Your task to perform on an android device: Open CNN.com Image 0: 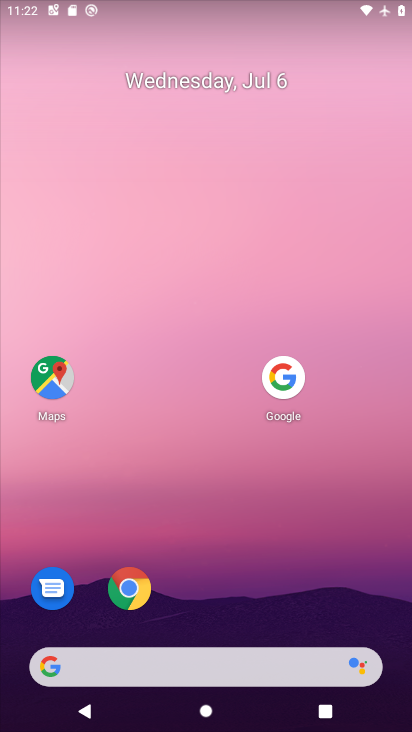
Step 0: click (124, 593)
Your task to perform on an android device: Open CNN.com Image 1: 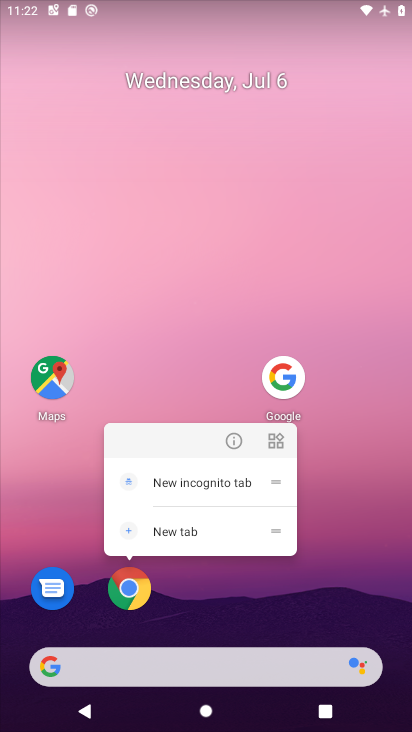
Step 1: click (141, 587)
Your task to perform on an android device: Open CNN.com Image 2: 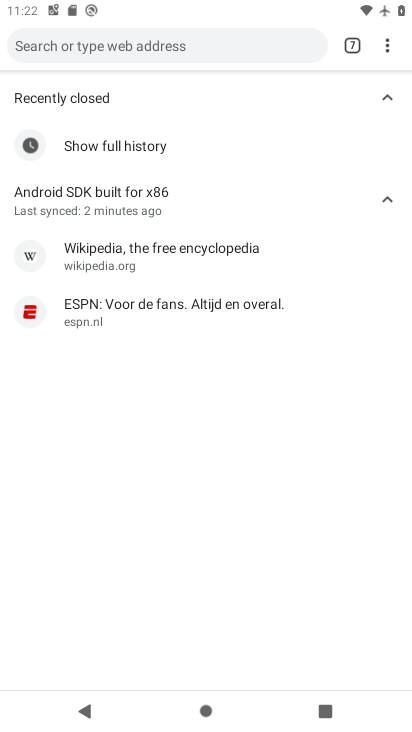
Step 2: click (387, 57)
Your task to perform on an android device: Open CNN.com Image 3: 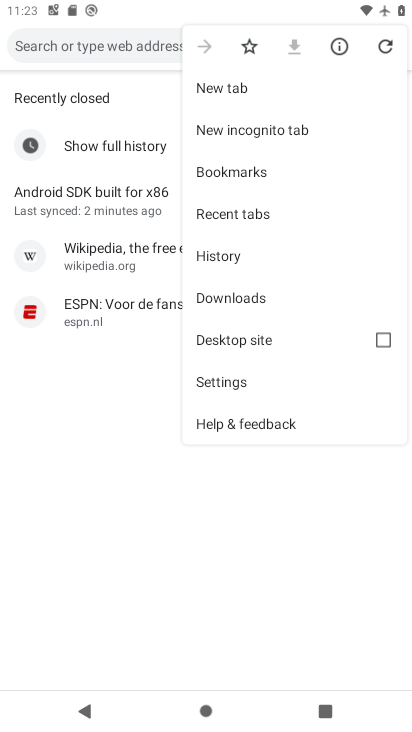
Step 3: click (243, 89)
Your task to perform on an android device: Open CNN.com Image 4: 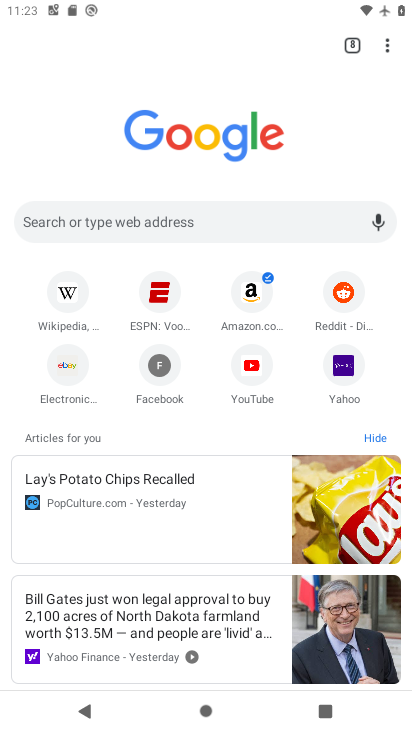
Step 4: click (151, 219)
Your task to perform on an android device: Open CNN.com Image 5: 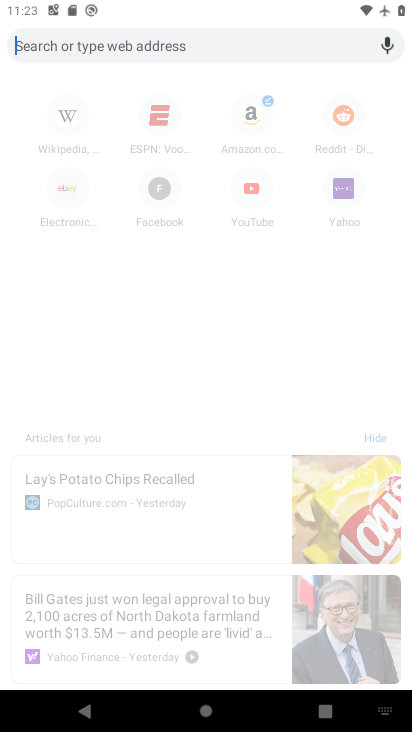
Step 5: type "cnn.com"
Your task to perform on an android device: Open CNN.com Image 6: 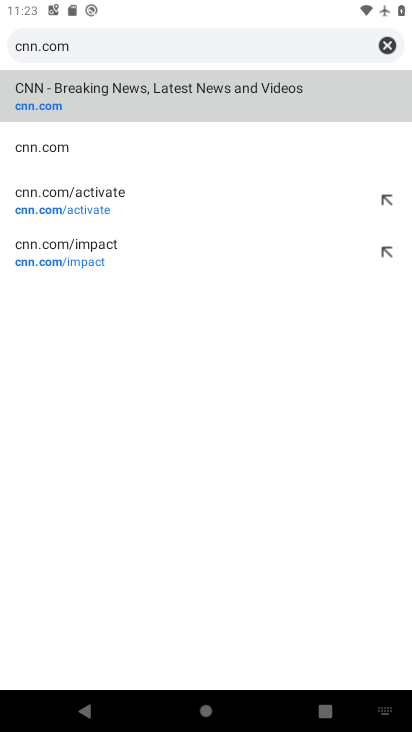
Step 6: click (125, 94)
Your task to perform on an android device: Open CNN.com Image 7: 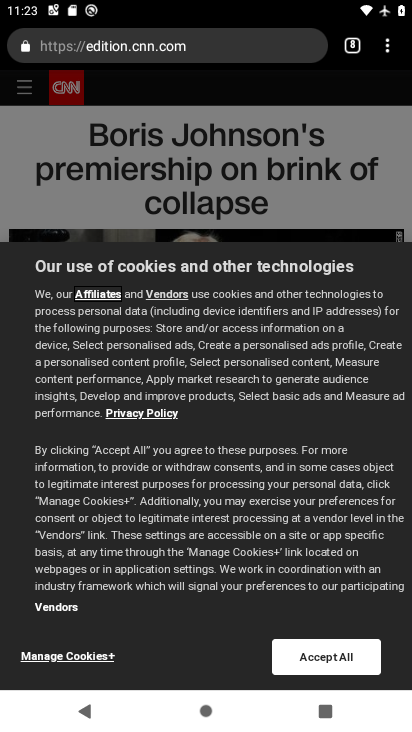
Step 7: click (336, 655)
Your task to perform on an android device: Open CNN.com Image 8: 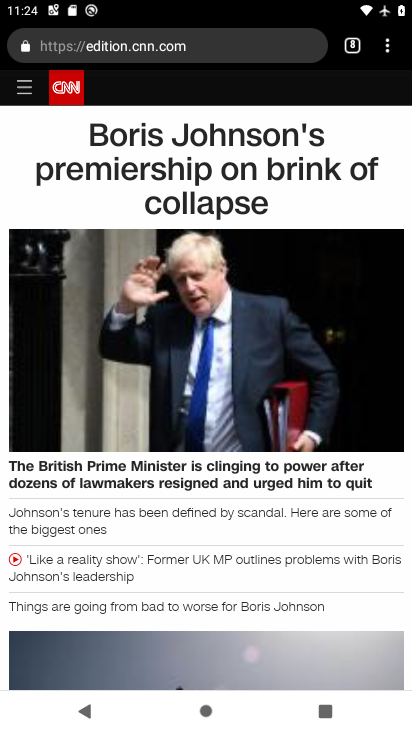
Step 8: task complete